Your task to perform on an android device: delete a single message in the gmail app Image 0: 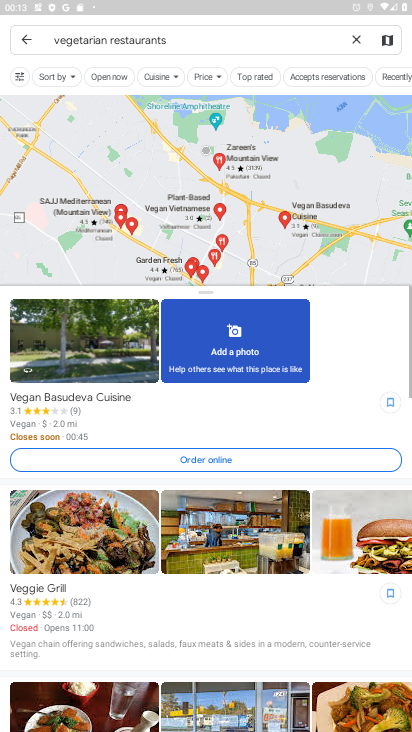
Step 0: press home button
Your task to perform on an android device: delete a single message in the gmail app Image 1: 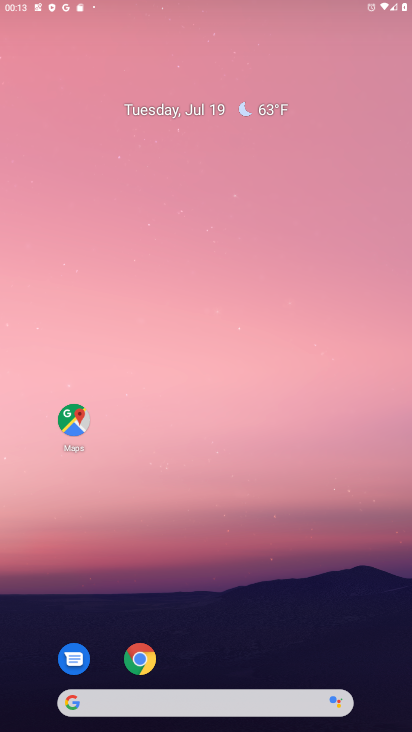
Step 1: drag from (208, 560) to (183, 3)
Your task to perform on an android device: delete a single message in the gmail app Image 2: 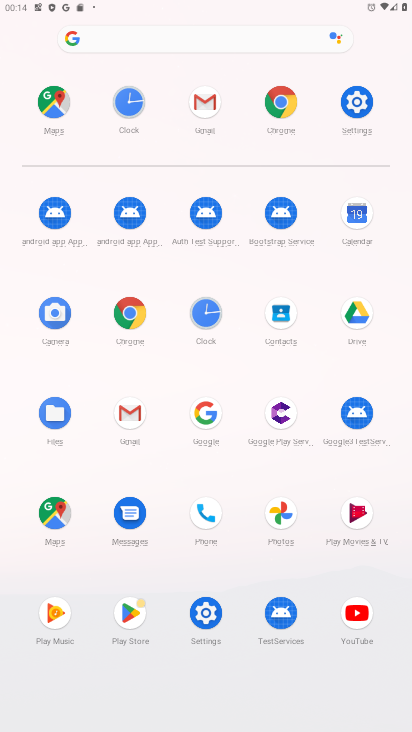
Step 2: click (129, 412)
Your task to perform on an android device: delete a single message in the gmail app Image 3: 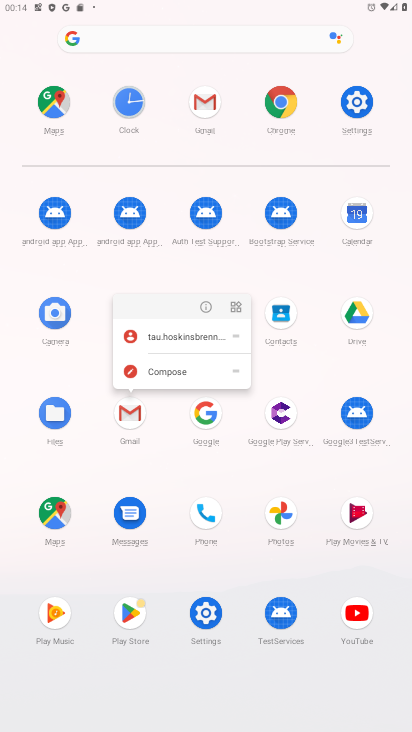
Step 3: click (129, 412)
Your task to perform on an android device: delete a single message in the gmail app Image 4: 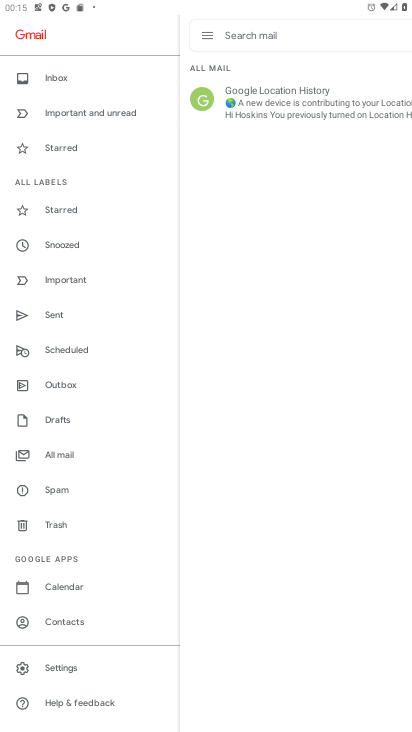
Step 4: click (236, 219)
Your task to perform on an android device: delete a single message in the gmail app Image 5: 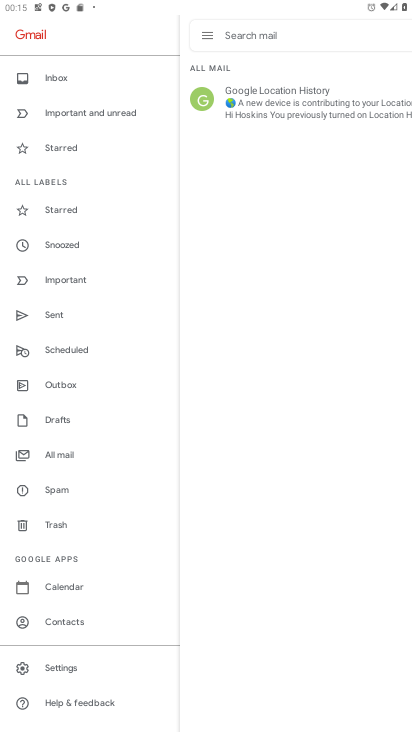
Step 5: click (259, 111)
Your task to perform on an android device: delete a single message in the gmail app Image 6: 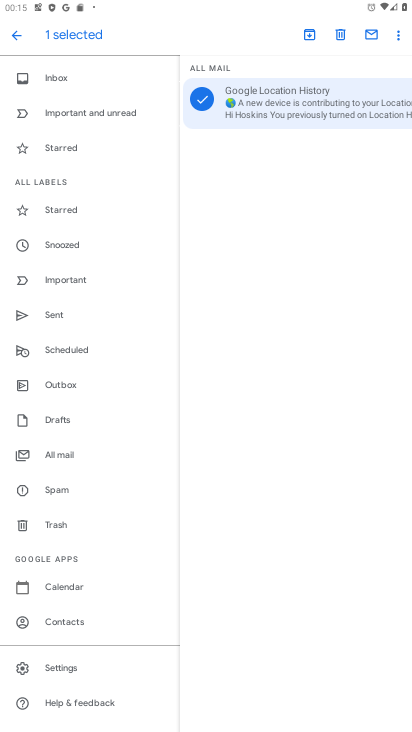
Step 6: click (340, 34)
Your task to perform on an android device: delete a single message in the gmail app Image 7: 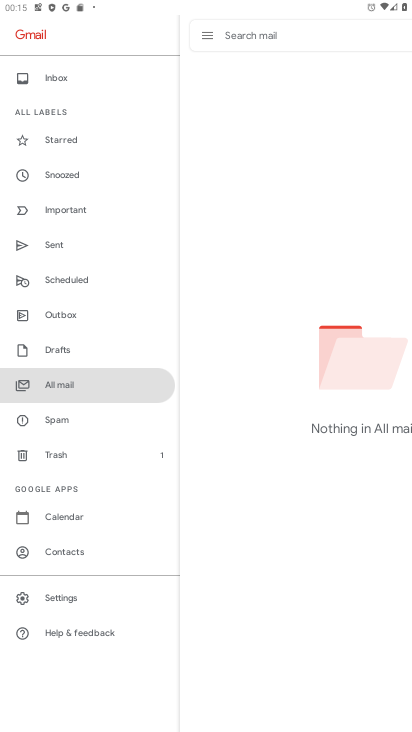
Step 7: task complete